Your task to perform on an android device: Go to privacy settings Image 0: 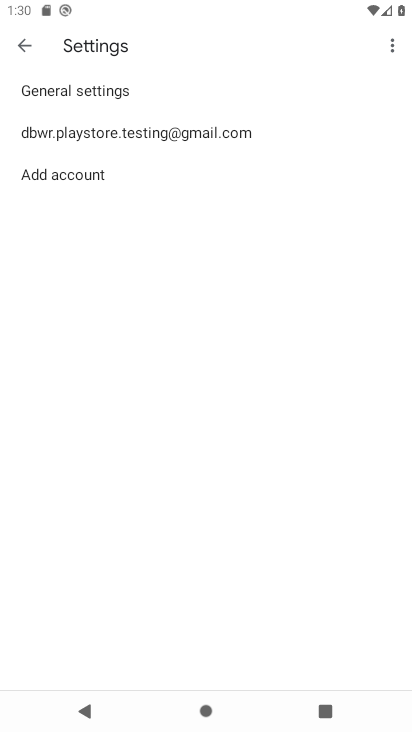
Step 0: press home button
Your task to perform on an android device: Go to privacy settings Image 1: 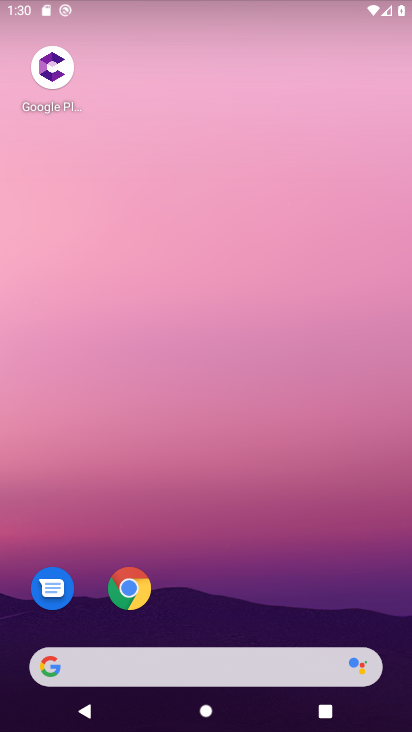
Step 1: drag from (204, 593) to (211, 194)
Your task to perform on an android device: Go to privacy settings Image 2: 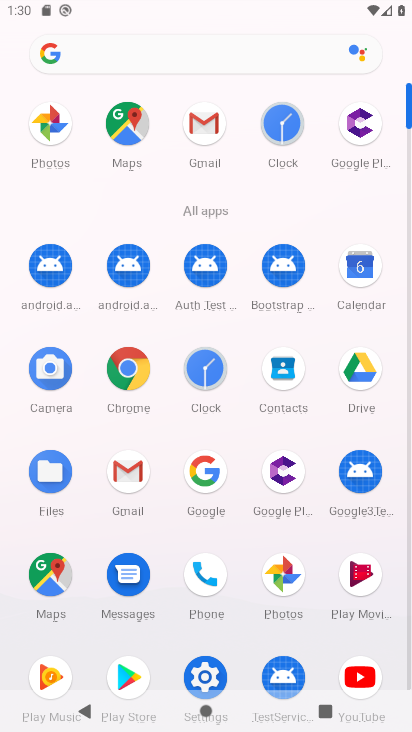
Step 2: click (201, 678)
Your task to perform on an android device: Go to privacy settings Image 3: 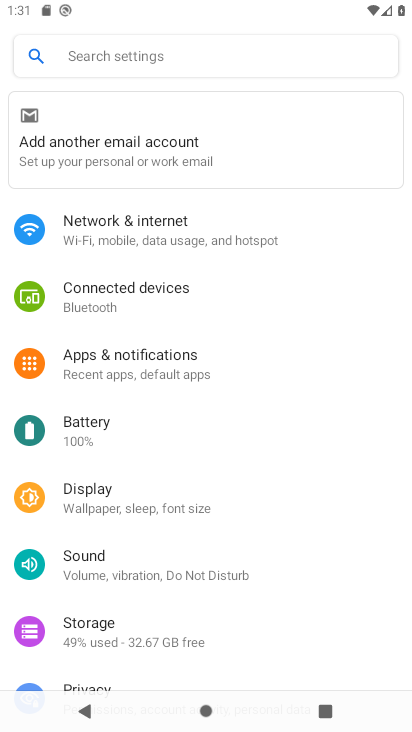
Step 3: drag from (124, 597) to (132, 328)
Your task to perform on an android device: Go to privacy settings Image 4: 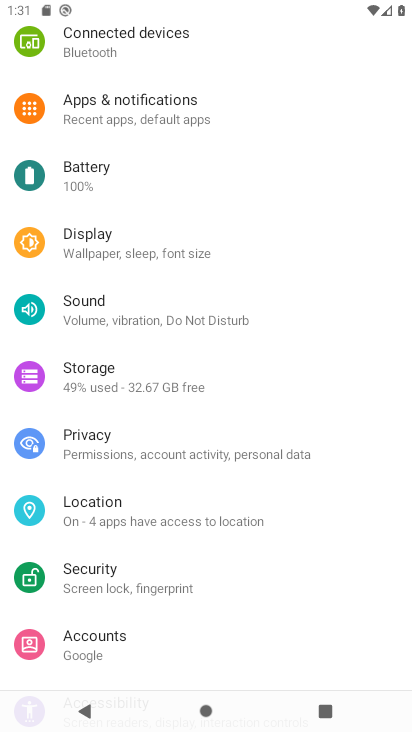
Step 4: click (91, 451)
Your task to perform on an android device: Go to privacy settings Image 5: 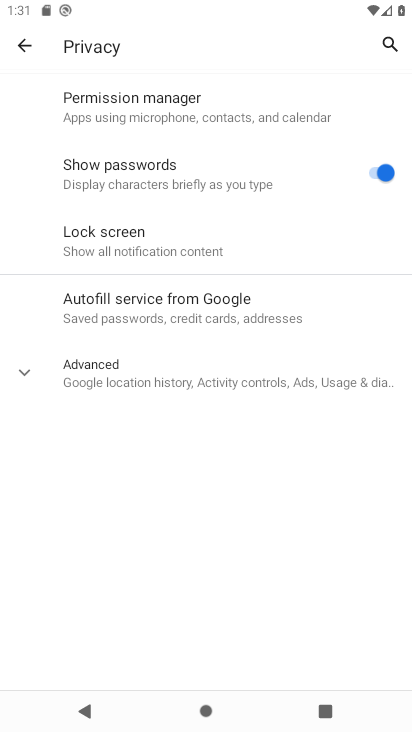
Step 5: task complete